Your task to perform on an android device: Open Yahoo.com Image 0: 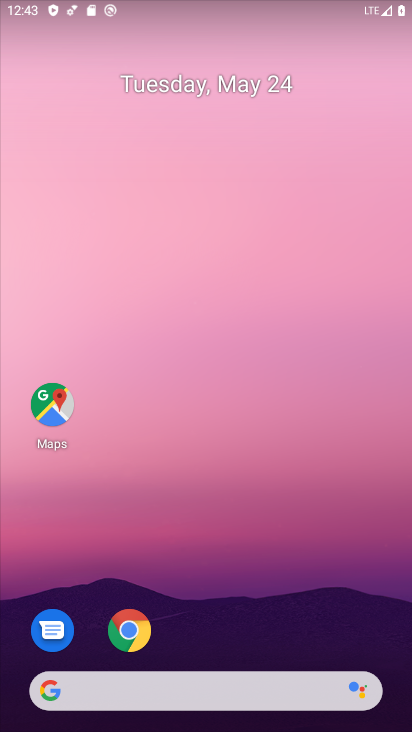
Step 0: click (150, 647)
Your task to perform on an android device: Open Yahoo.com Image 1: 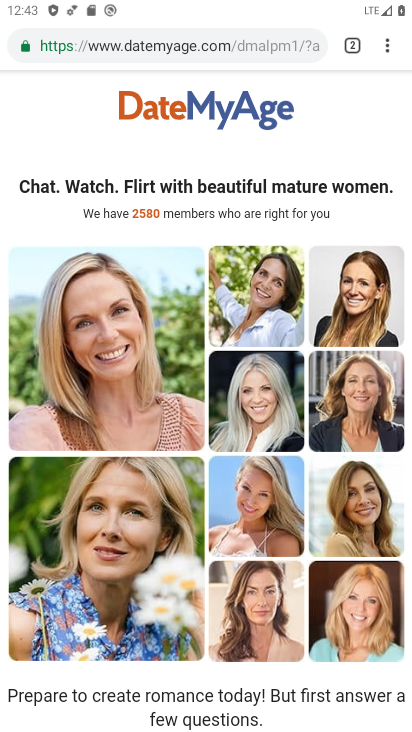
Step 1: click (345, 38)
Your task to perform on an android device: Open Yahoo.com Image 2: 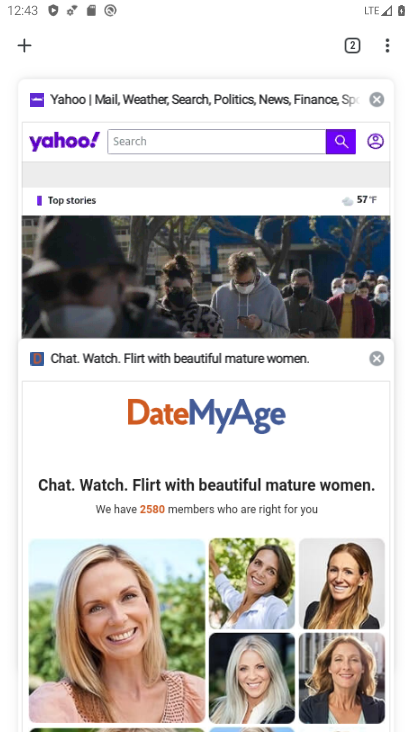
Step 2: click (377, 93)
Your task to perform on an android device: Open Yahoo.com Image 3: 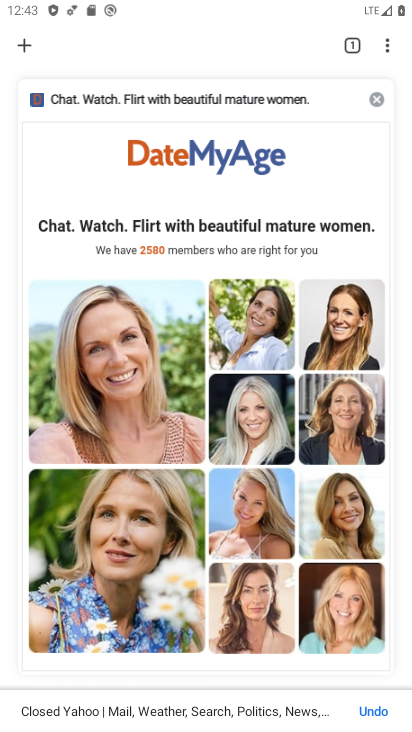
Step 3: click (377, 101)
Your task to perform on an android device: Open Yahoo.com Image 4: 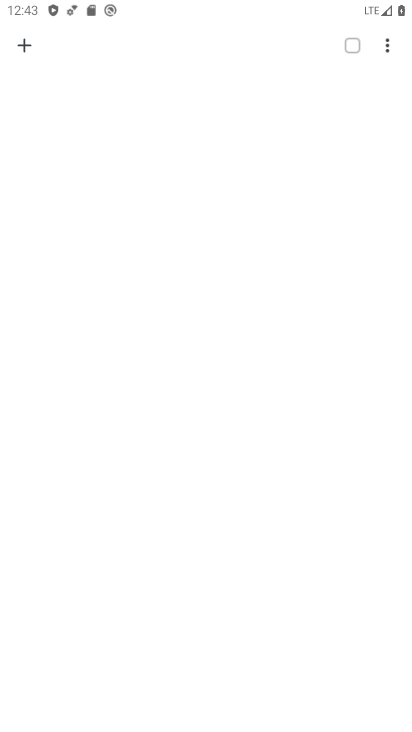
Step 4: click (15, 44)
Your task to perform on an android device: Open Yahoo.com Image 5: 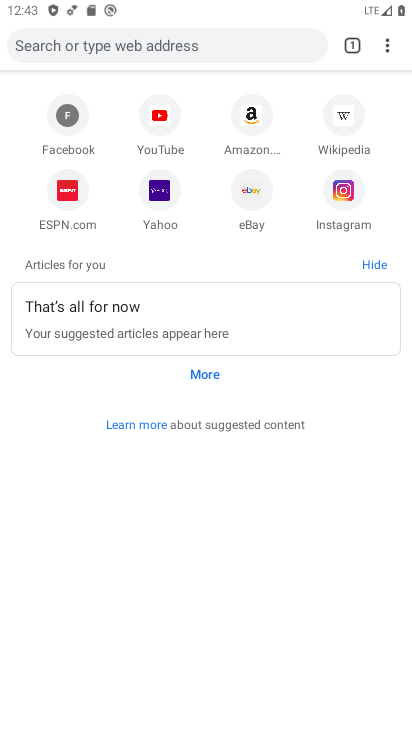
Step 5: click (151, 201)
Your task to perform on an android device: Open Yahoo.com Image 6: 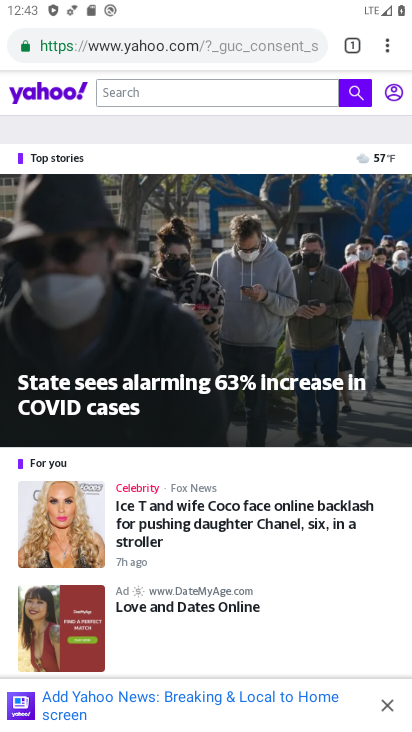
Step 6: task complete